Your task to perform on an android device: What is the recent news? Image 0: 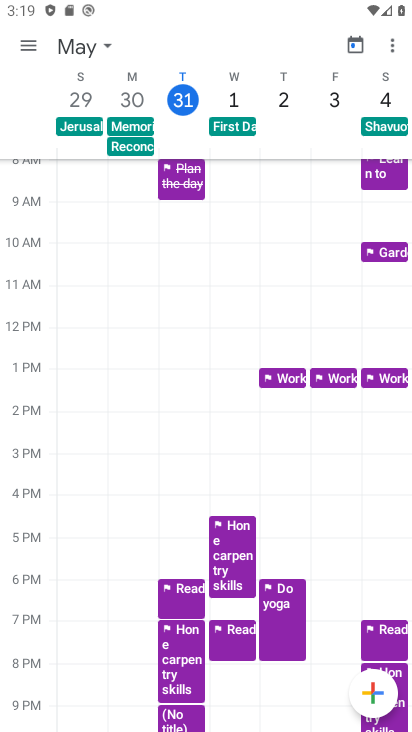
Step 0: press home button
Your task to perform on an android device: What is the recent news? Image 1: 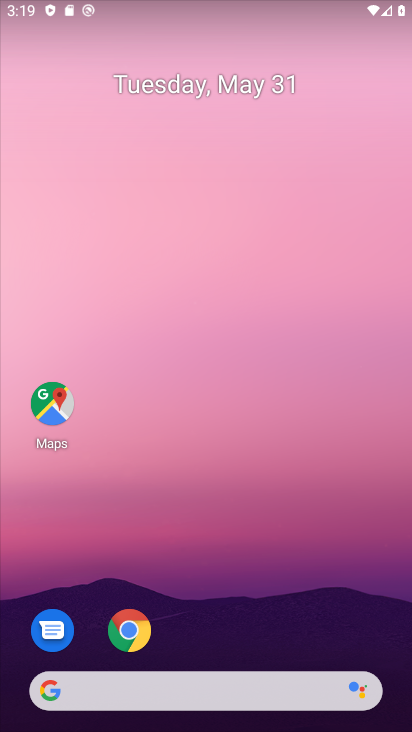
Step 1: drag from (269, 663) to (321, 24)
Your task to perform on an android device: What is the recent news? Image 2: 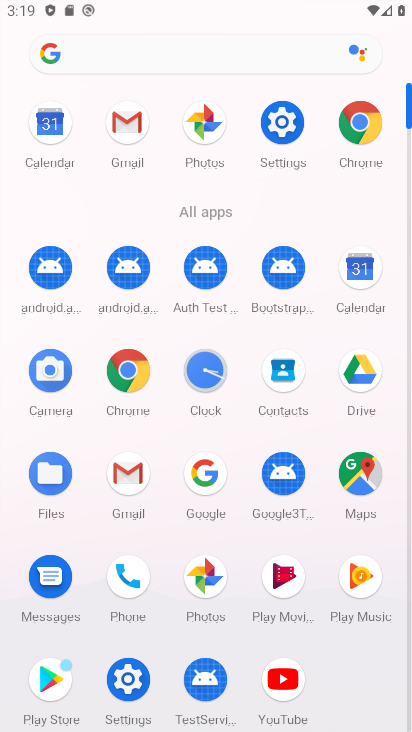
Step 2: click (123, 378)
Your task to perform on an android device: What is the recent news? Image 3: 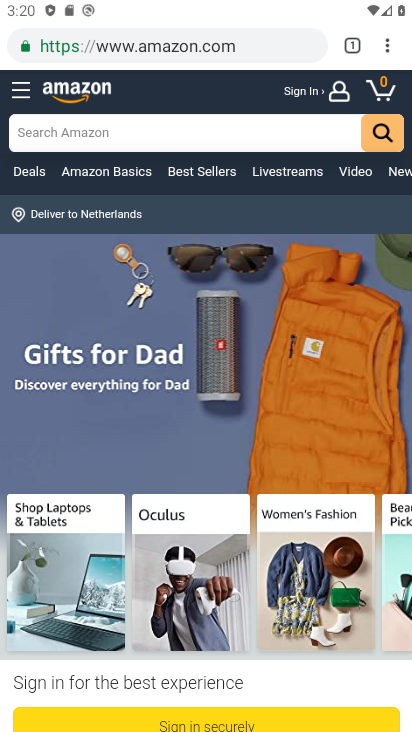
Step 3: click (224, 46)
Your task to perform on an android device: What is the recent news? Image 4: 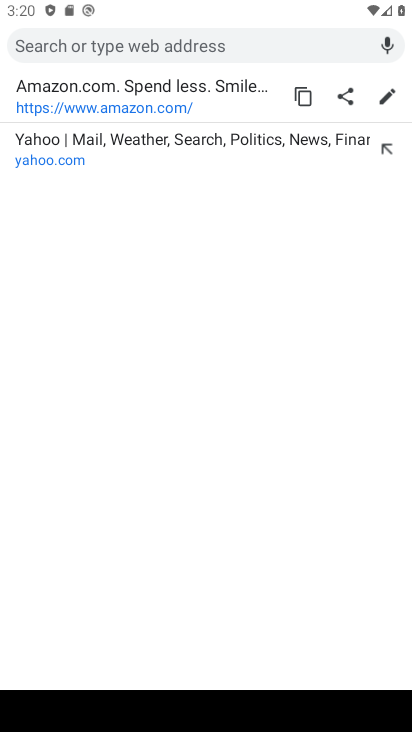
Step 4: type "recent news"
Your task to perform on an android device: What is the recent news? Image 5: 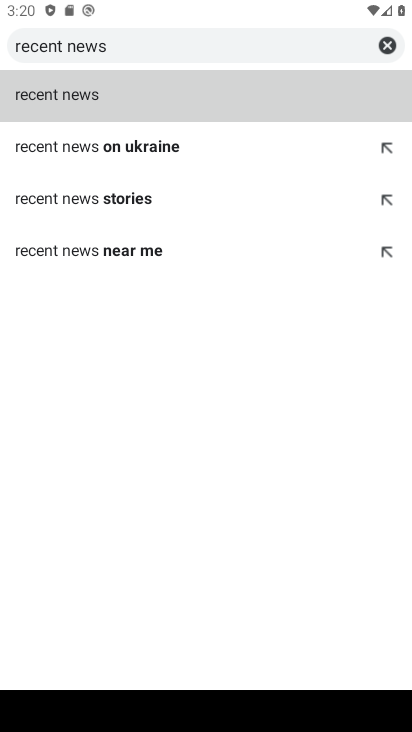
Step 5: click (109, 96)
Your task to perform on an android device: What is the recent news? Image 6: 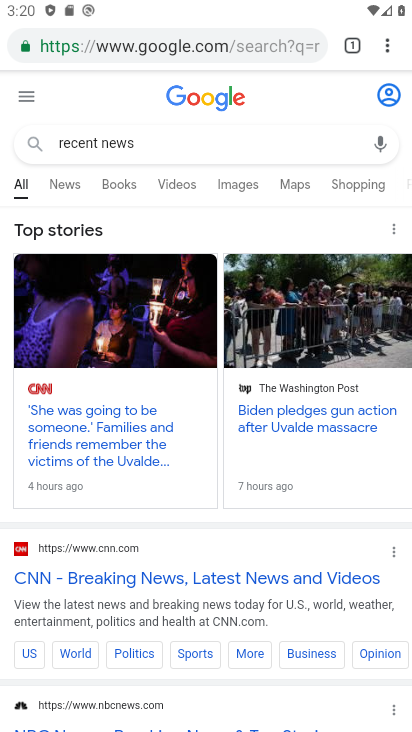
Step 6: task complete